Your task to perform on an android device: Show me recent news Image 0: 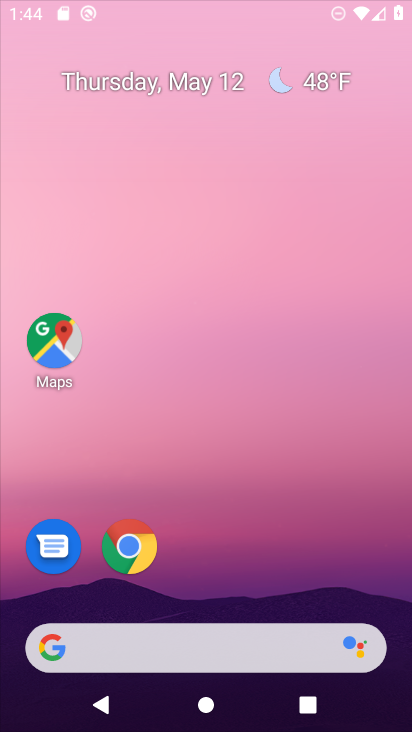
Step 0: click (219, 247)
Your task to perform on an android device: Show me recent news Image 1: 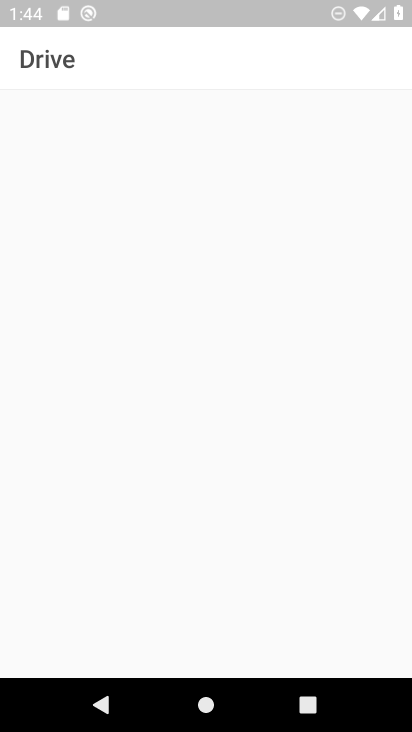
Step 1: press home button
Your task to perform on an android device: Show me recent news Image 2: 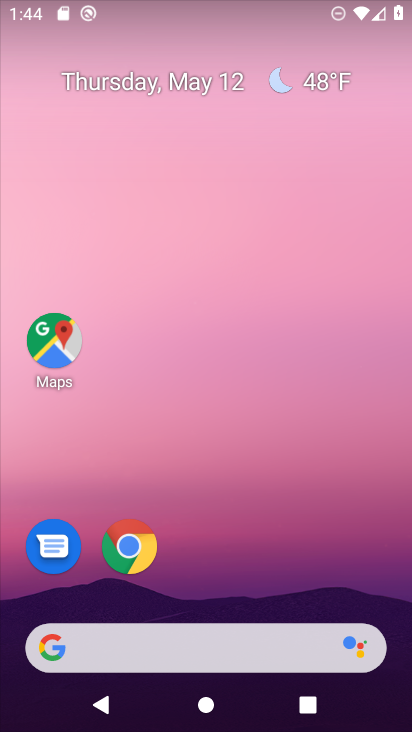
Step 2: drag from (266, 656) to (242, 171)
Your task to perform on an android device: Show me recent news Image 3: 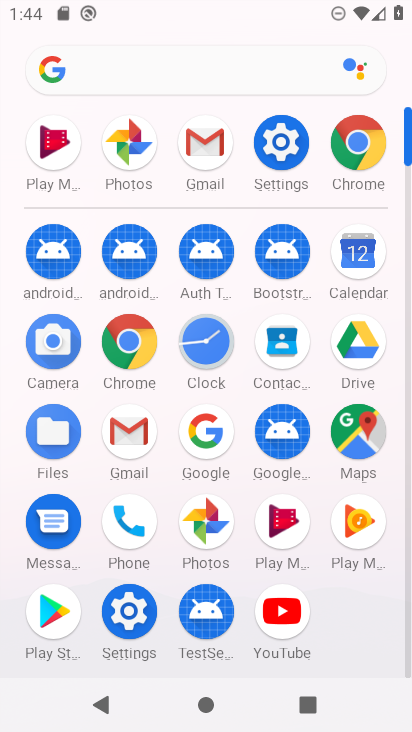
Step 3: click (167, 66)
Your task to perform on an android device: Show me recent news Image 4: 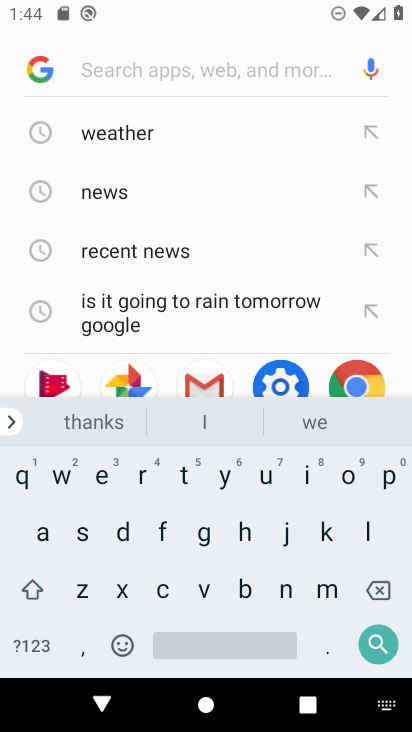
Step 4: click (129, 477)
Your task to perform on an android device: Show me recent news Image 5: 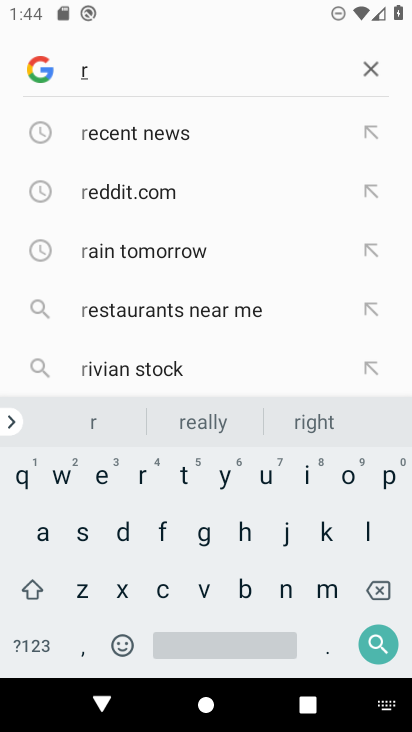
Step 5: click (103, 481)
Your task to perform on an android device: Show me recent news Image 6: 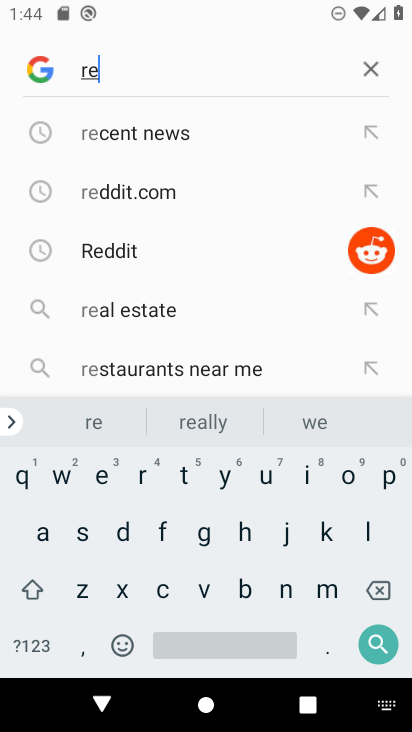
Step 6: click (151, 138)
Your task to perform on an android device: Show me recent news Image 7: 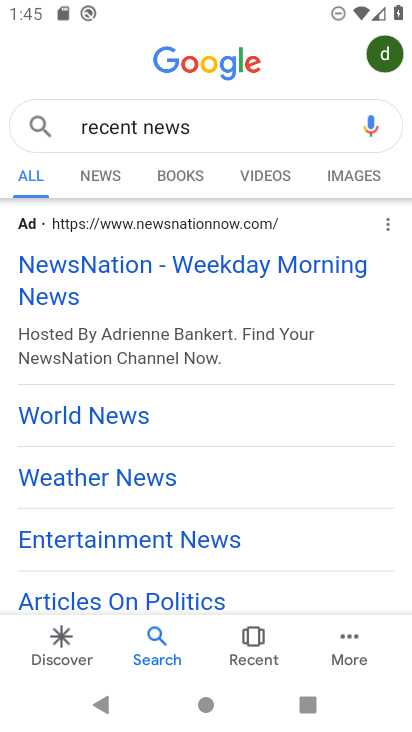
Step 7: task complete